Your task to perform on an android device: Open the Play Movies app and select the watchlist tab. Image 0: 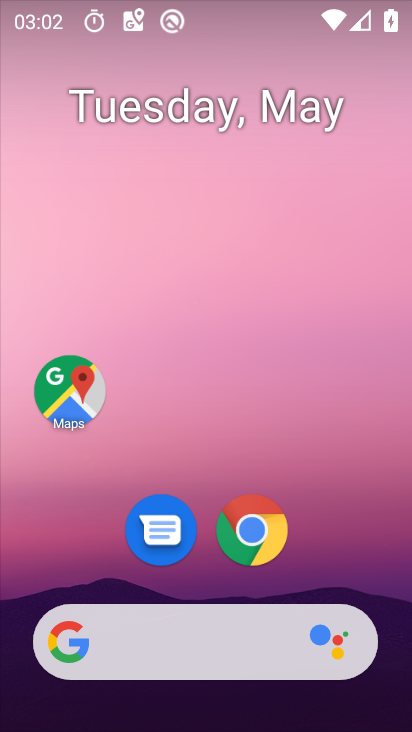
Step 0: press home button
Your task to perform on an android device: Open the Play Movies app and select the watchlist tab. Image 1: 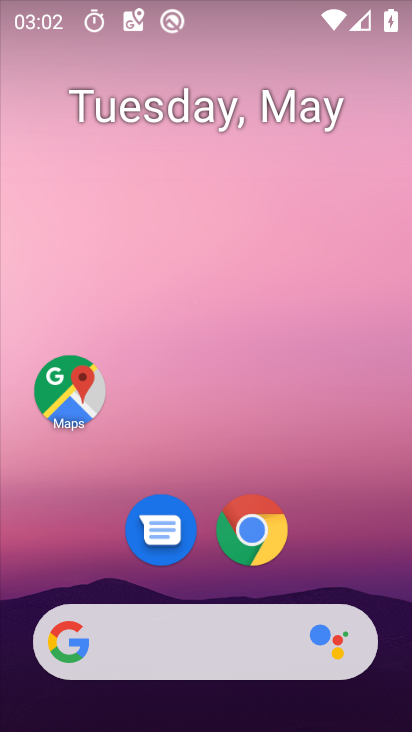
Step 1: drag from (47, 517) to (273, 146)
Your task to perform on an android device: Open the Play Movies app and select the watchlist tab. Image 2: 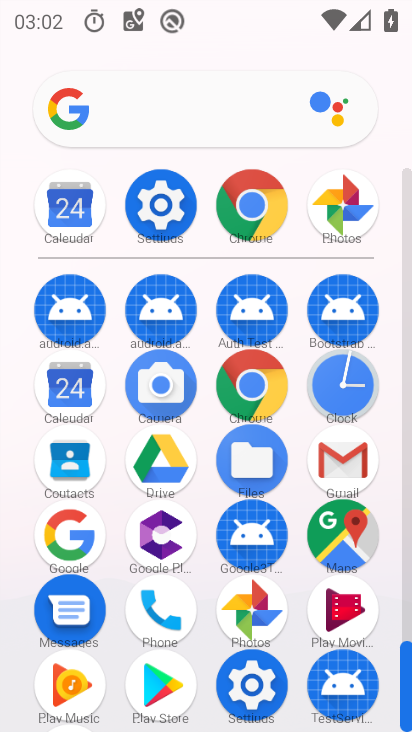
Step 2: click (328, 601)
Your task to perform on an android device: Open the Play Movies app and select the watchlist tab. Image 3: 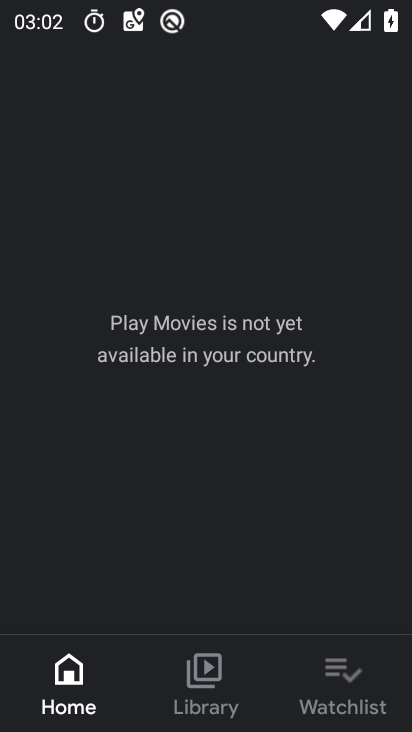
Step 3: click (343, 683)
Your task to perform on an android device: Open the Play Movies app and select the watchlist tab. Image 4: 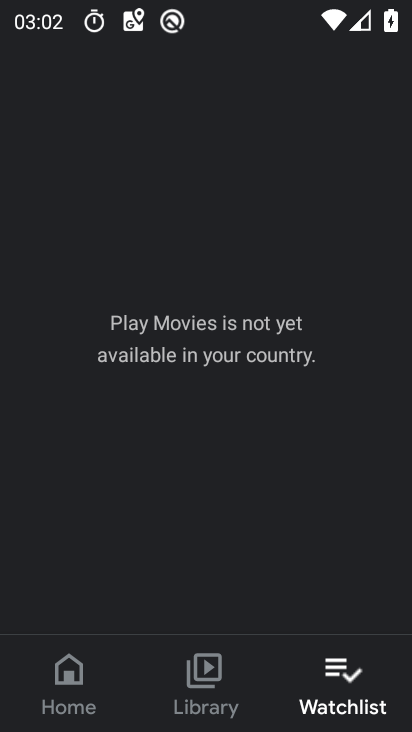
Step 4: task complete